Your task to perform on an android device: check the backup settings in the google photos Image 0: 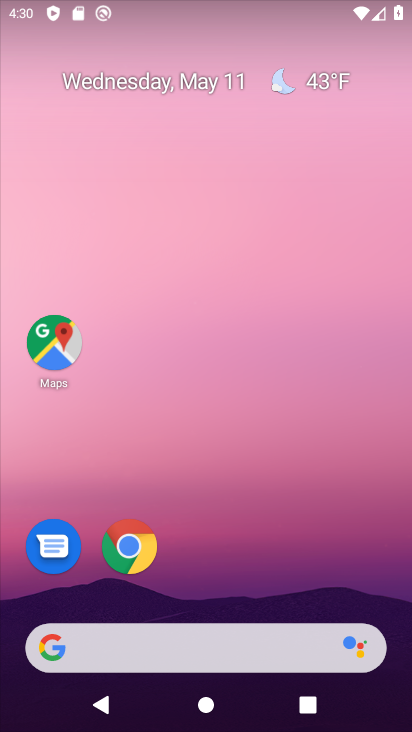
Step 0: drag from (146, 590) to (193, 246)
Your task to perform on an android device: check the backup settings in the google photos Image 1: 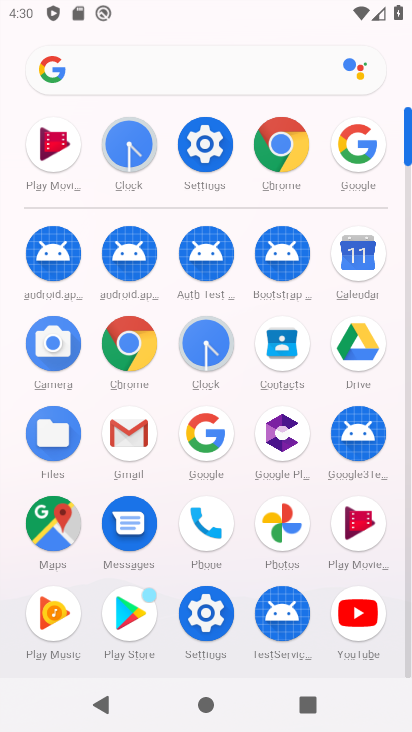
Step 1: click (279, 532)
Your task to perform on an android device: check the backup settings in the google photos Image 2: 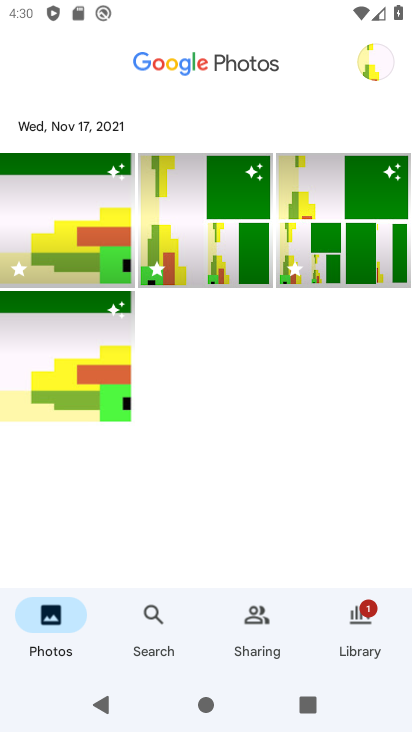
Step 2: click (370, 69)
Your task to perform on an android device: check the backup settings in the google photos Image 3: 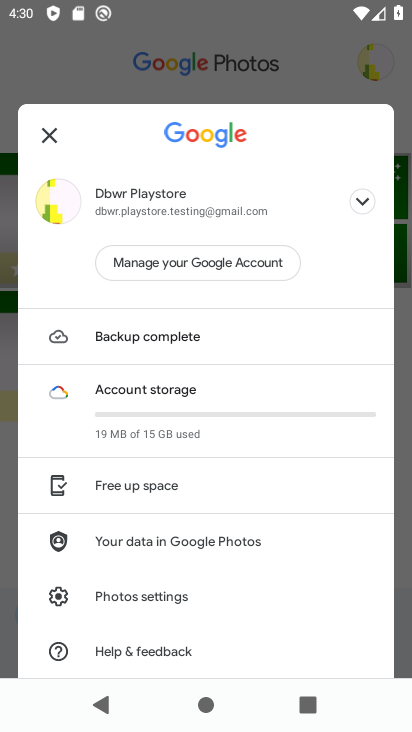
Step 3: click (121, 590)
Your task to perform on an android device: check the backup settings in the google photos Image 4: 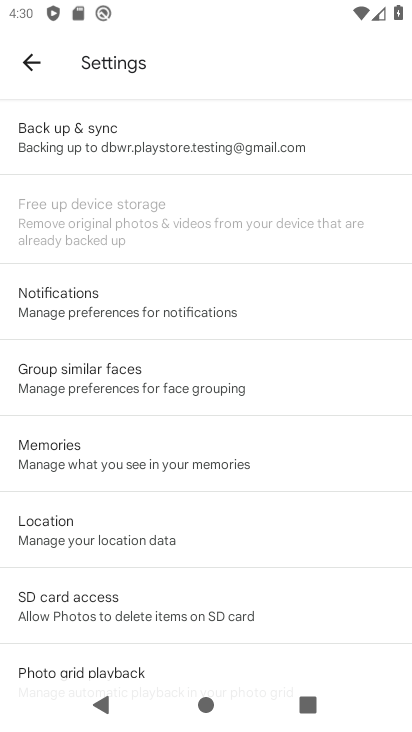
Step 4: click (102, 141)
Your task to perform on an android device: check the backup settings in the google photos Image 5: 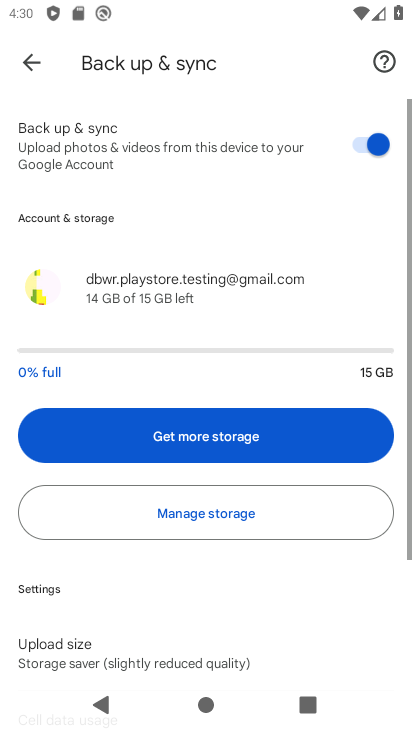
Step 5: task complete